Your task to perform on an android device: turn off translation in the chrome app Image 0: 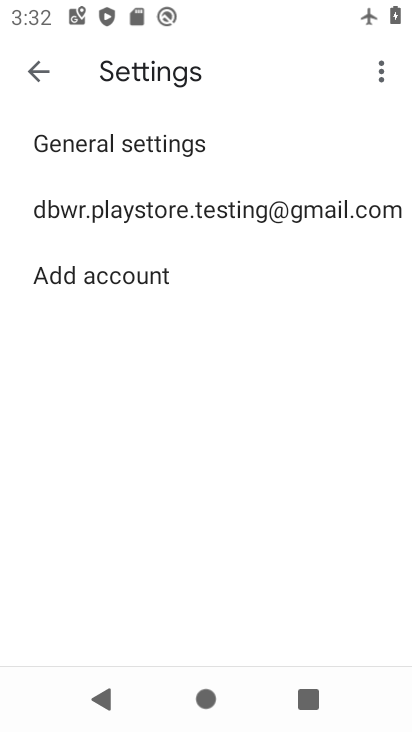
Step 0: press home button
Your task to perform on an android device: turn off translation in the chrome app Image 1: 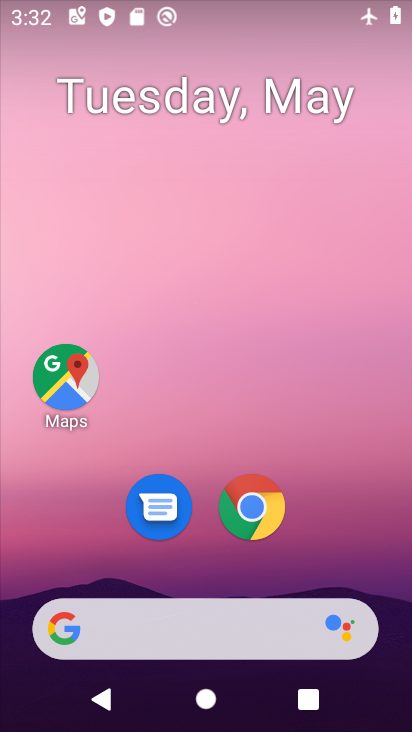
Step 1: click (245, 508)
Your task to perform on an android device: turn off translation in the chrome app Image 2: 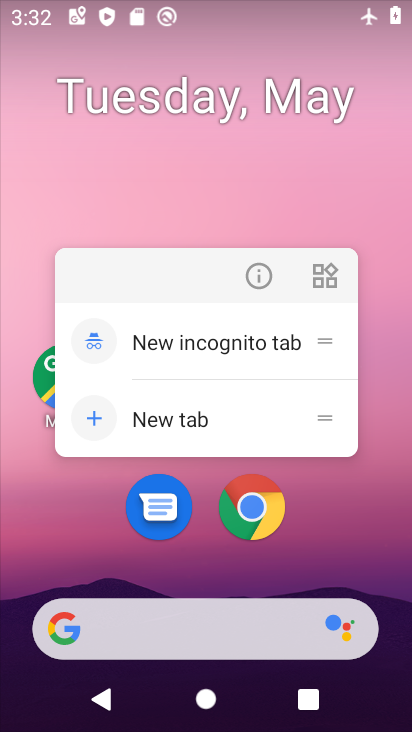
Step 2: click (249, 521)
Your task to perform on an android device: turn off translation in the chrome app Image 3: 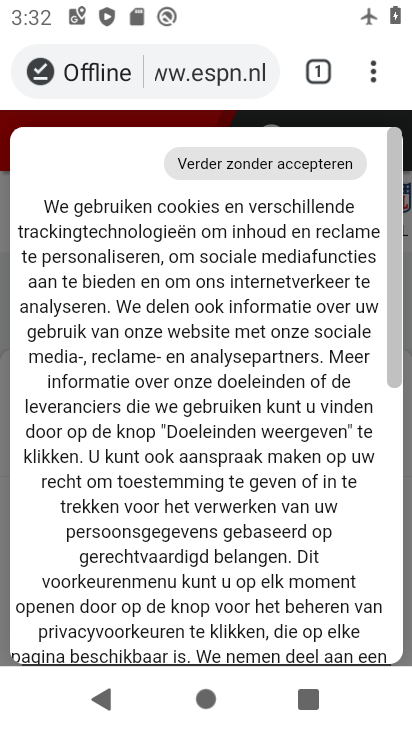
Step 3: click (370, 73)
Your task to perform on an android device: turn off translation in the chrome app Image 4: 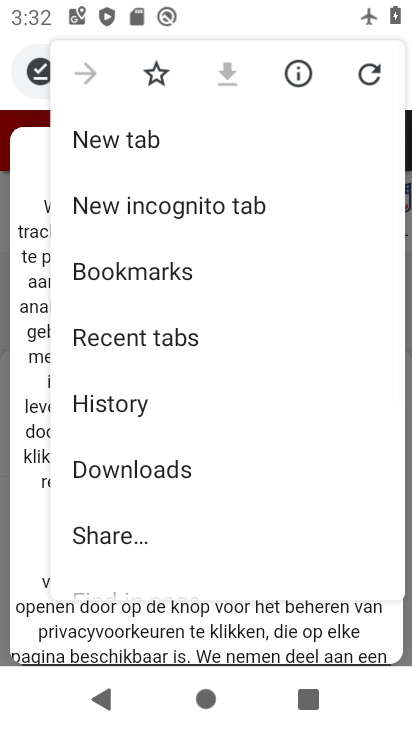
Step 4: drag from (238, 537) to (225, 194)
Your task to perform on an android device: turn off translation in the chrome app Image 5: 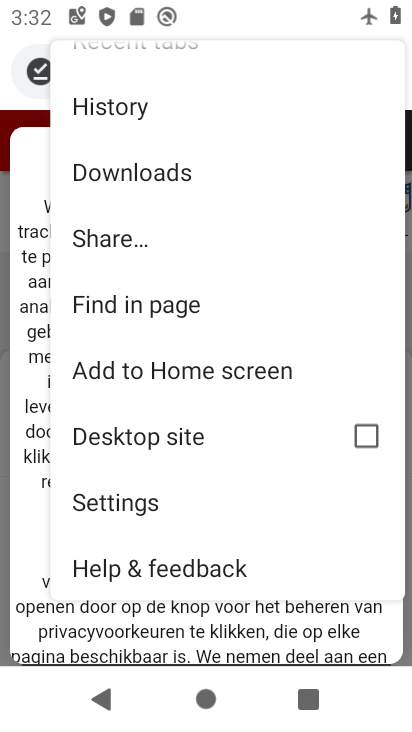
Step 5: click (170, 492)
Your task to perform on an android device: turn off translation in the chrome app Image 6: 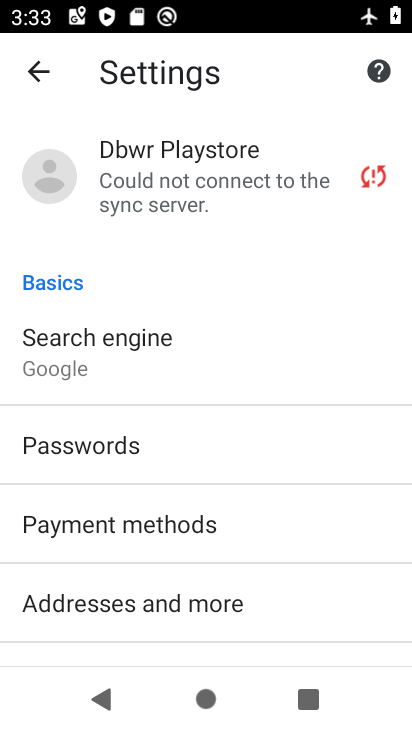
Step 6: drag from (169, 633) to (260, 243)
Your task to perform on an android device: turn off translation in the chrome app Image 7: 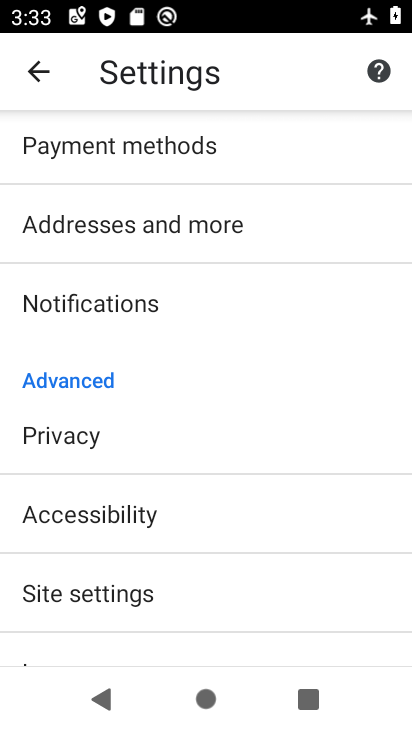
Step 7: drag from (204, 581) to (213, 252)
Your task to perform on an android device: turn off translation in the chrome app Image 8: 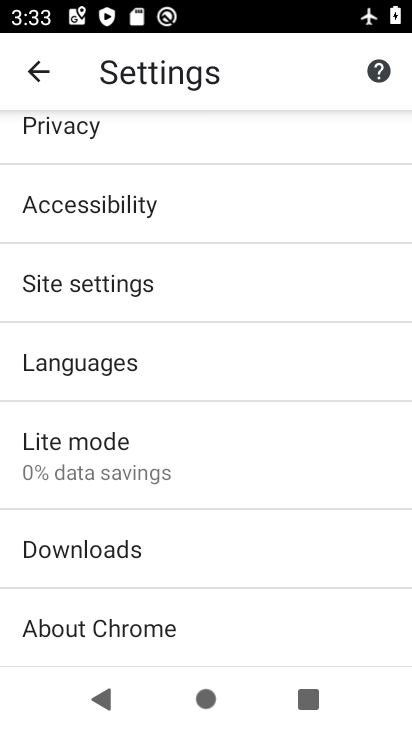
Step 8: click (108, 377)
Your task to perform on an android device: turn off translation in the chrome app Image 9: 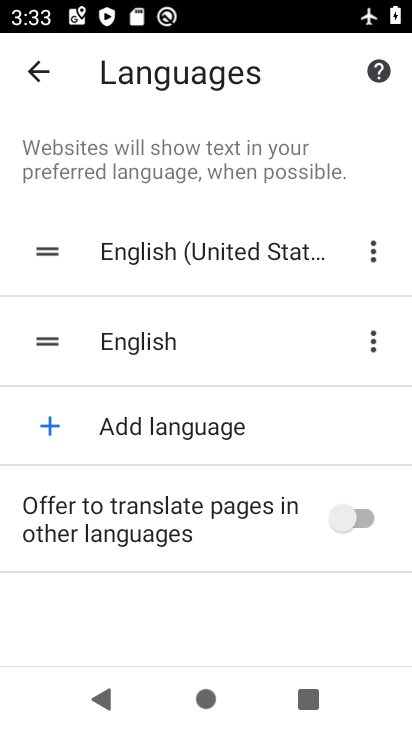
Step 9: task complete